Your task to perform on an android device: Open Youtube and go to the subscriptions tab Image 0: 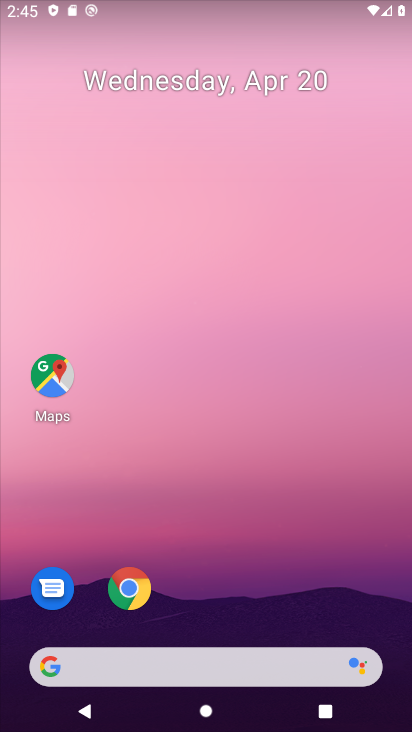
Step 0: drag from (258, 606) to (270, 3)
Your task to perform on an android device: Open Youtube and go to the subscriptions tab Image 1: 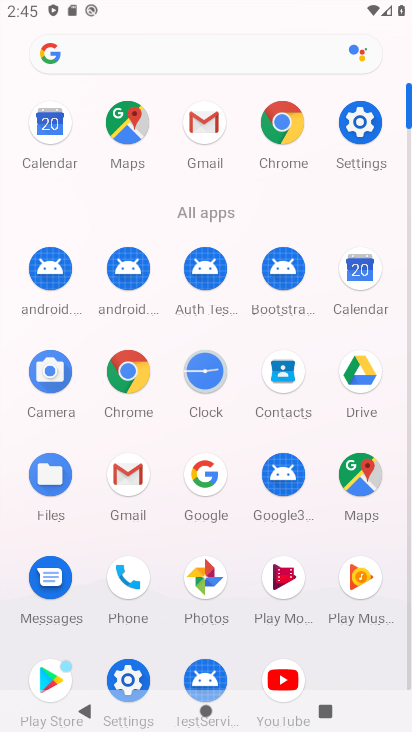
Step 1: click (286, 678)
Your task to perform on an android device: Open Youtube and go to the subscriptions tab Image 2: 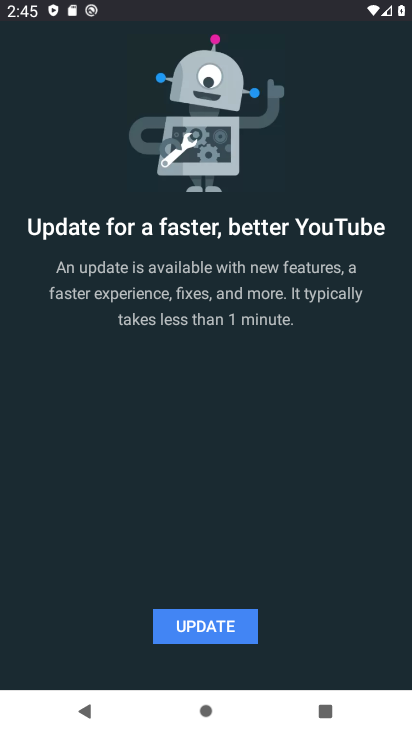
Step 2: click (224, 629)
Your task to perform on an android device: Open Youtube and go to the subscriptions tab Image 3: 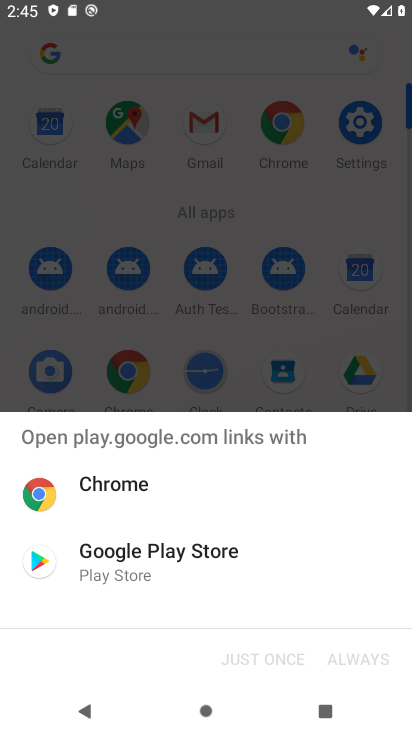
Step 3: click (134, 545)
Your task to perform on an android device: Open Youtube and go to the subscriptions tab Image 4: 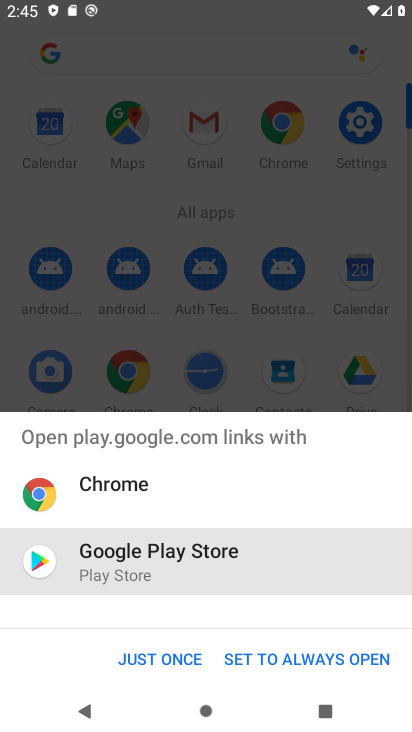
Step 4: click (171, 652)
Your task to perform on an android device: Open Youtube and go to the subscriptions tab Image 5: 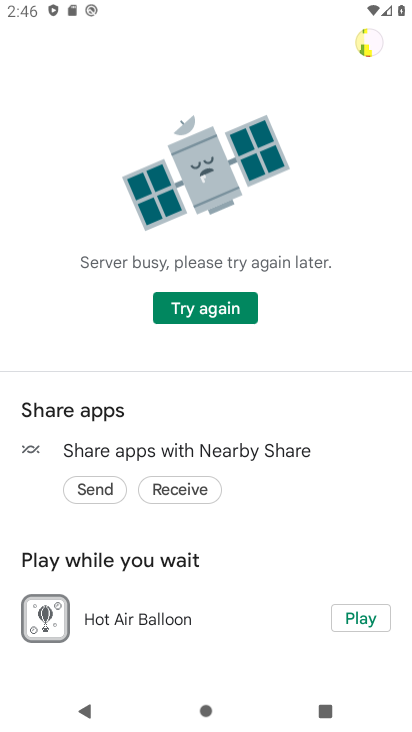
Step 5: click (198, 311)
Your task to perform on an android device: Open Youtube and go to the subscriptions tab Image 6: 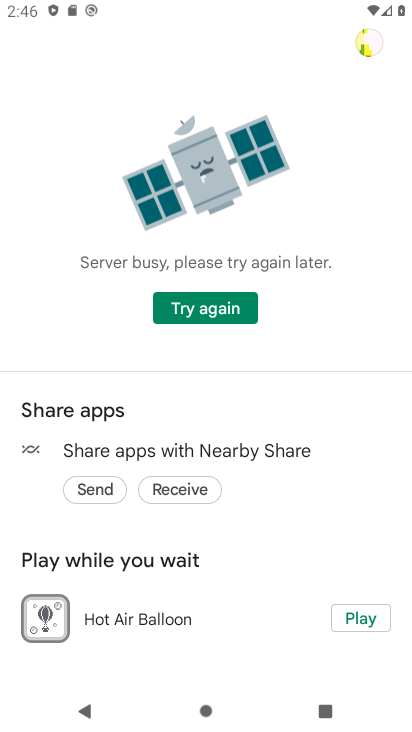
Step 6: task complete